Your task to perform on an android device: turn off improve location accuracy Image 0: 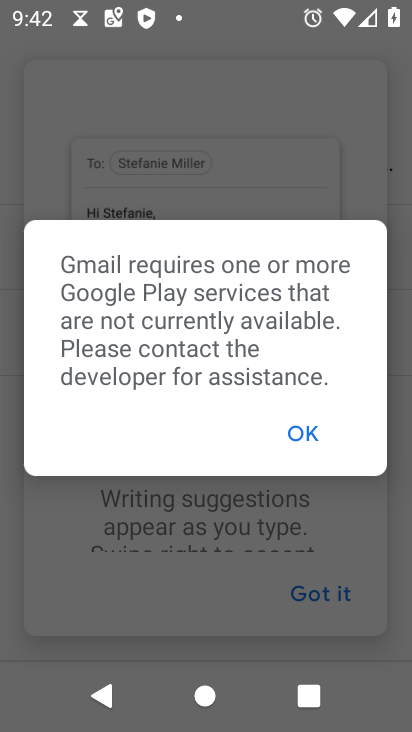
Step 0: press home button
Your task to perform on an android device: turn off improve location accuracy Image 1: 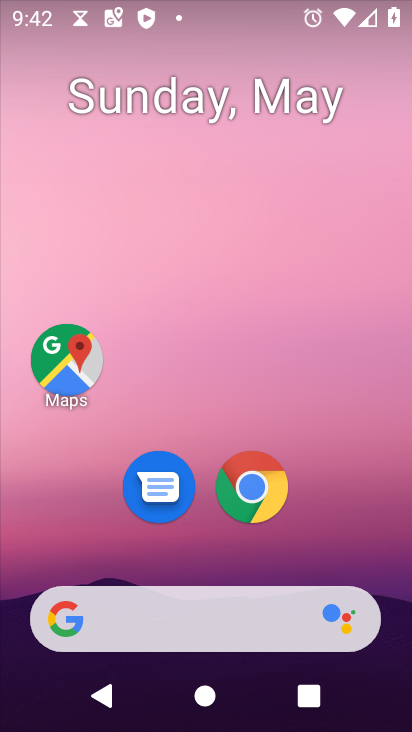
Step 1: drag from (337, 558) to (259, 95)
Your task to perform on an android device: turn off improve location accuracy Image 2: 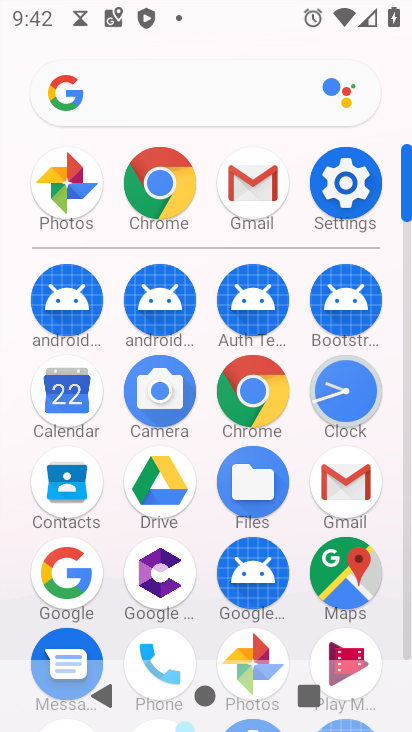
Step 2: click (358, 203)
Your task to perform on an android device: turn off improve location accuracy Image 3: 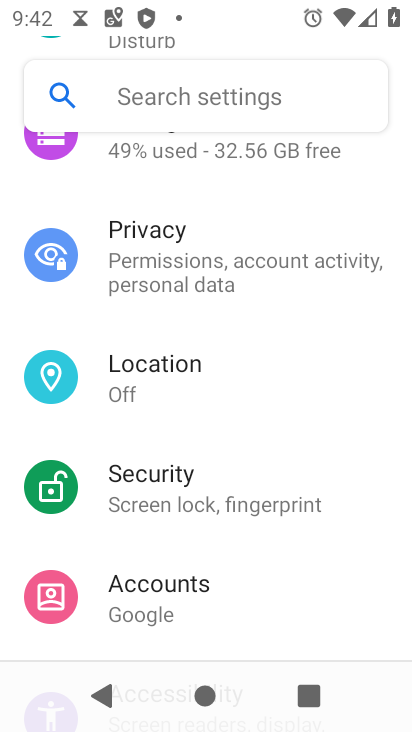
Step 3: click (118, 363)
Your task to perform on an android device: turn off improve location accuracy Image 4: 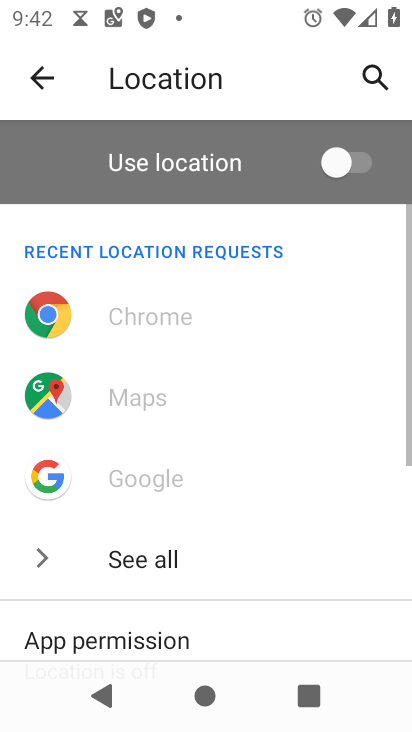
Step 4: drag from (208, 629) to (149, 183)
Your task to perform on an android device: turn off improve location accuracy Image 5: 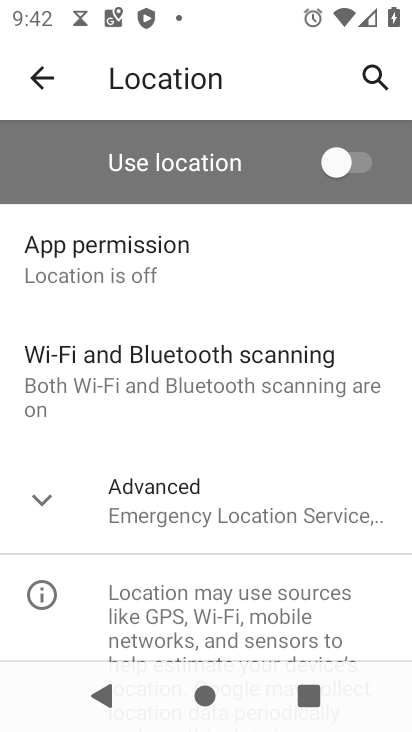
Step 5: drag from (222, 588) to (190, 369)
Your task to perform on an android device: turn off improve location accuracy Image 6: 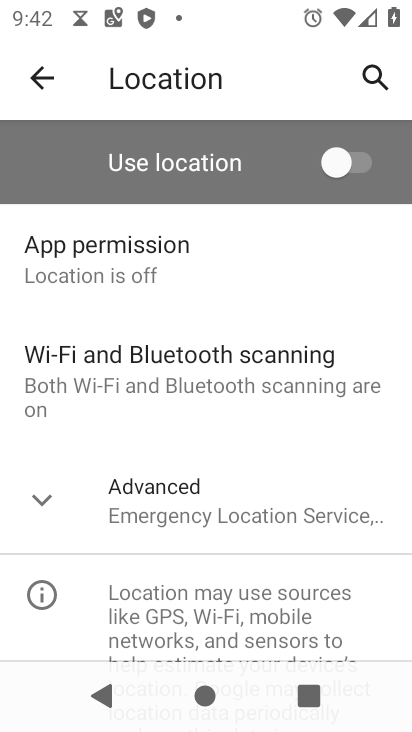
Step 6: click (234, 503)
Your task to perform on an android device: turn off improve location accuracy Image 7: 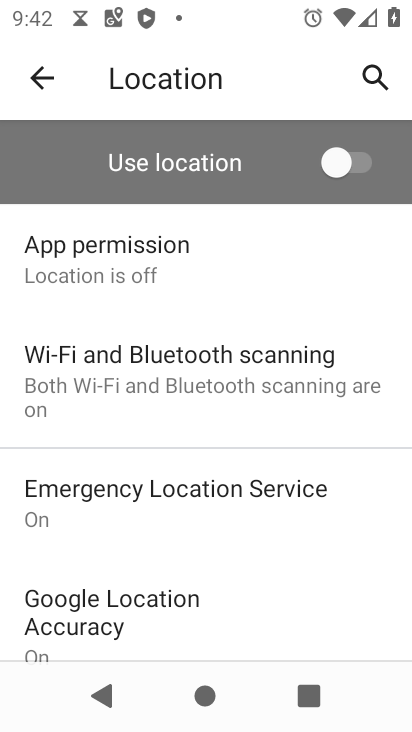
Step 7: drag from (235, 619) to (170, 276)
Your task to perform on an android device: turn off improve location accuracy Image 8: 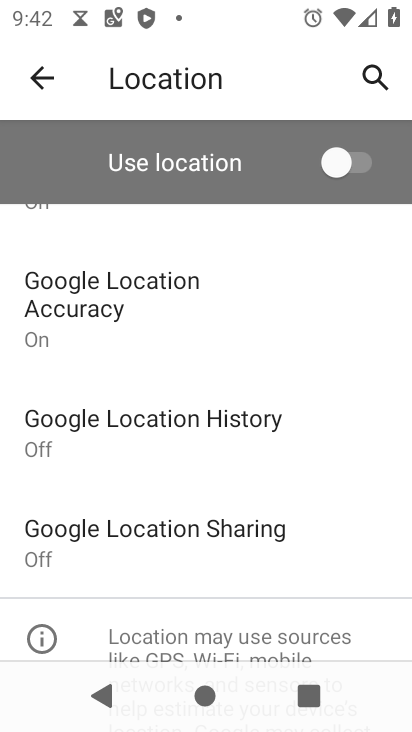
Step 8: click (67, 322)
Your task to perform on an android device: turn off improve location accuracy Image 9: 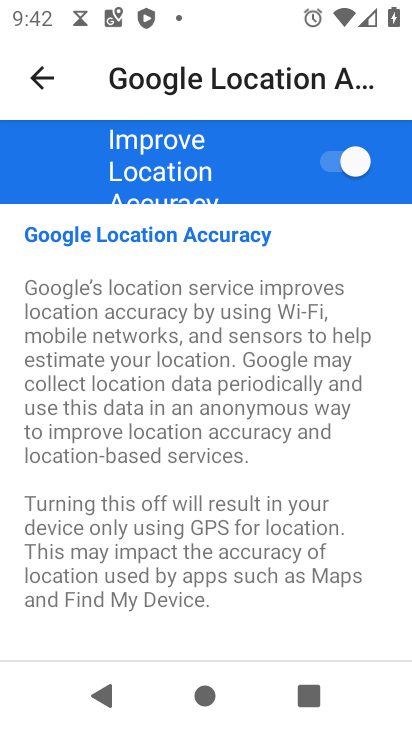
Step 9: click (333, 158)
Your task to perform on an android device: turn off improve location accuracy Image 10: 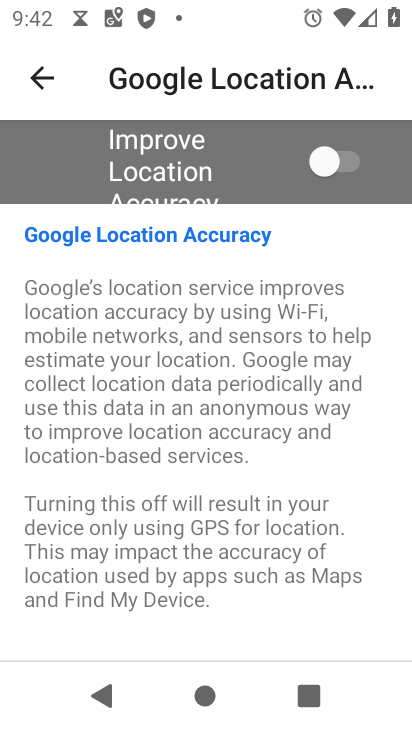
Step 10: task complete